Your task to perform on an android device: set an alarm Image 0: 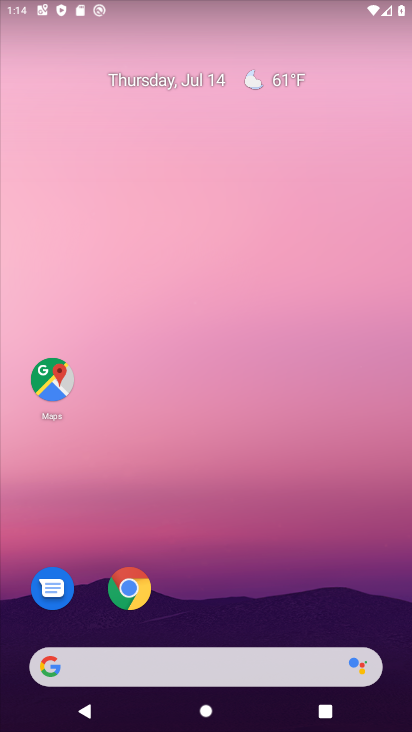
Step 0: drag from (184, 625) to (187, 191)
Your task to perform on an android device: set an alarm Image 1: 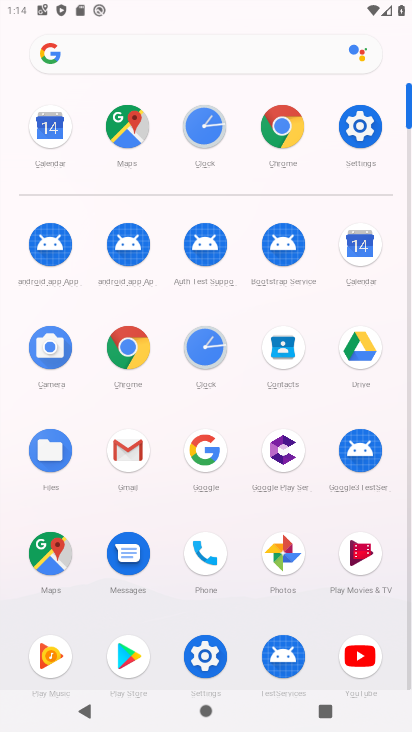
Step 1: click (210, 342)
Your task to perform on an android device: set an alarm Image 2: 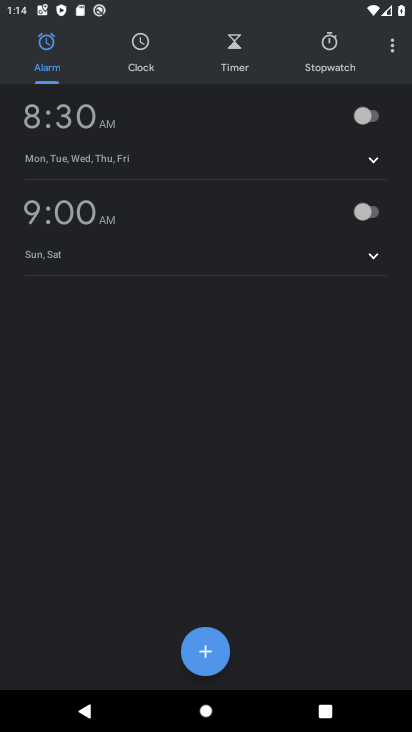
Step 2: click (358, 116)
Your task to perform on an android device: set an alarm Image 3: 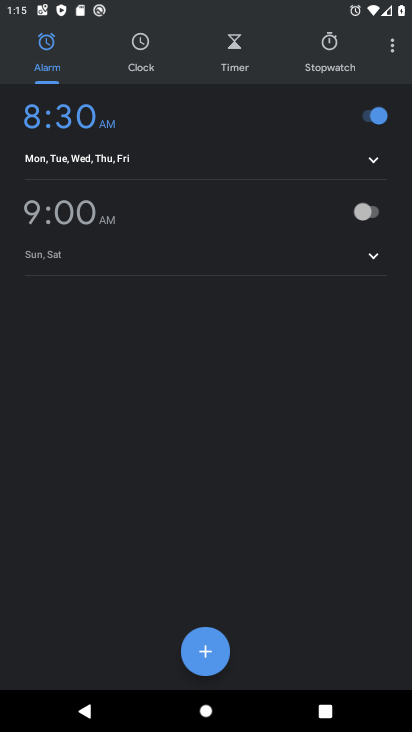
Step 3: task complete